Your task to perform on an android device: Open internet settings Image 0: 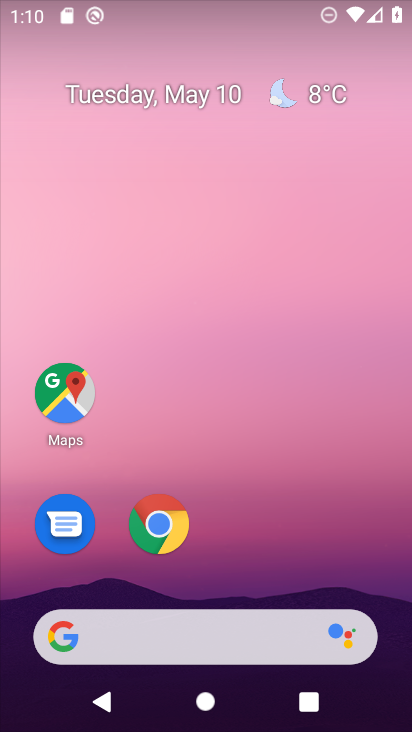
Step 0: drag from (256, 518) to (243, 2)
Your task to perform on an android device: Open internet settings Image 1: 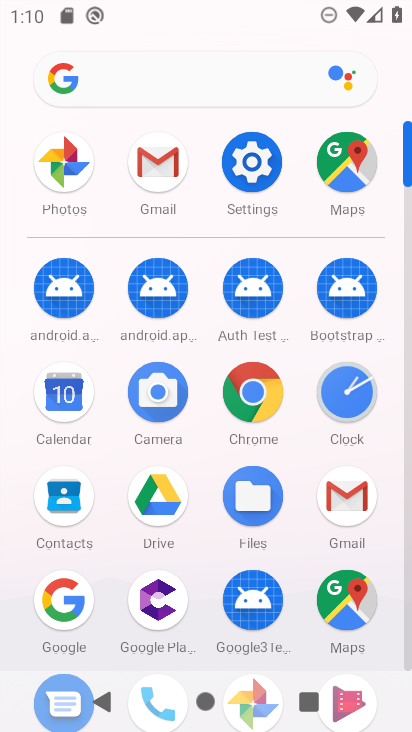
Step 1: click (254, 152)
Your task to perform on an android device: Open internet settings Image 2: 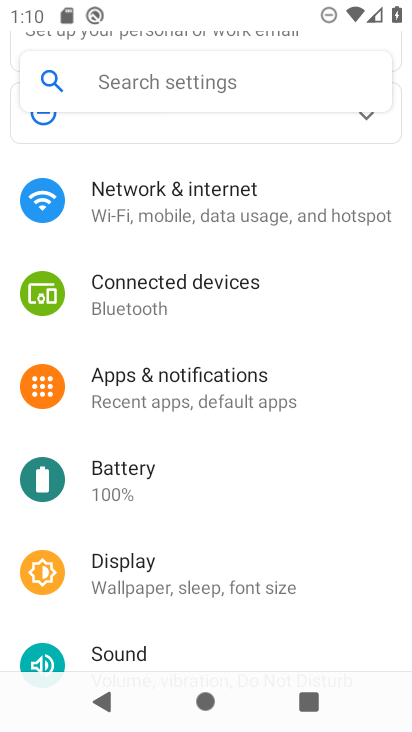
Step 2: click (250, 192)
Your task to perform on an android device: Open internet settings Image 3: 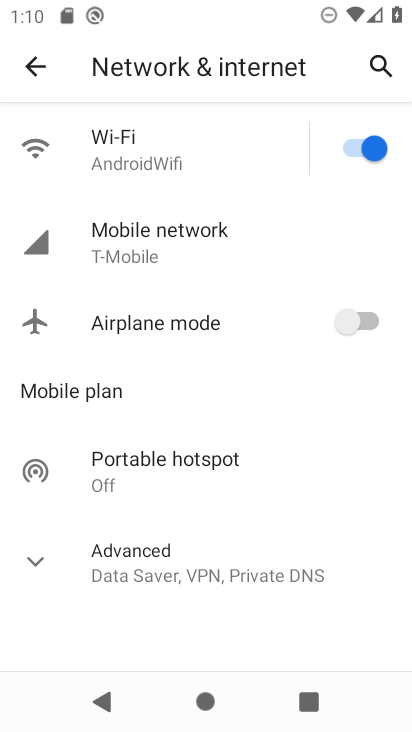
Step 3: task complete